Your task to perform on an android device: turn off improve location accuracy Image 0: 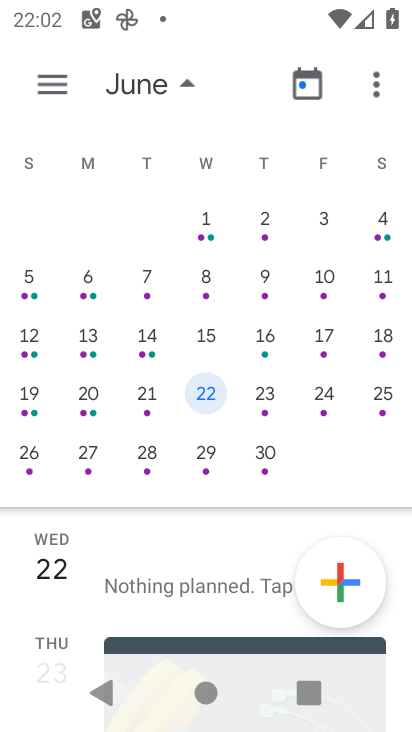
Step 0: press home button
Your task to perform on an android device: turn off improve location accuracy Image 1: 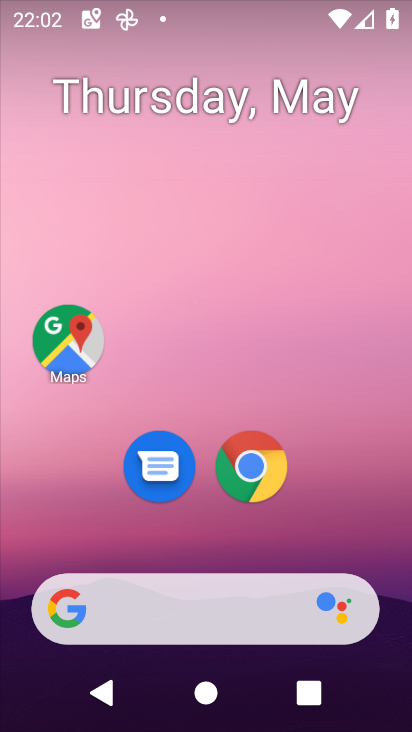
Step 1: drag from (367, 512) to (352, 69)
Your task to perform on an android device: turn off improve location accuracy Image 2: 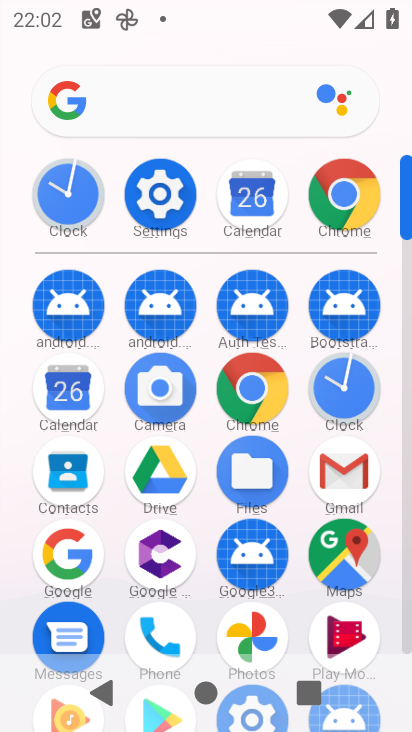
Step 2: click (169, 199)
Your task to perform on an android device: turn off improve location accuracy Image 3: 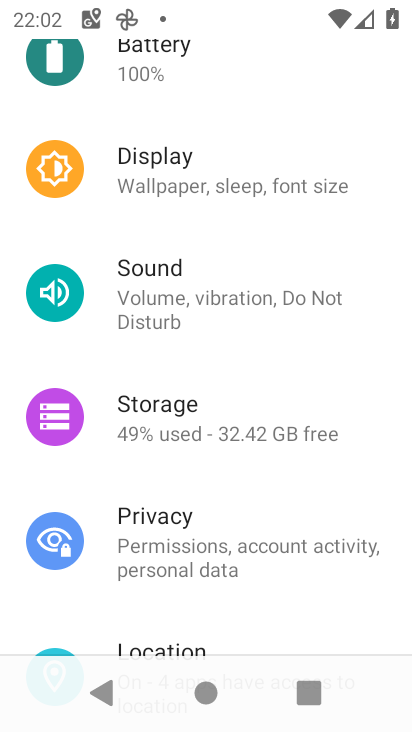
Step 3: click (214, 618)
Your task to perform on an android device: turn off improve location accuracy Image 4: 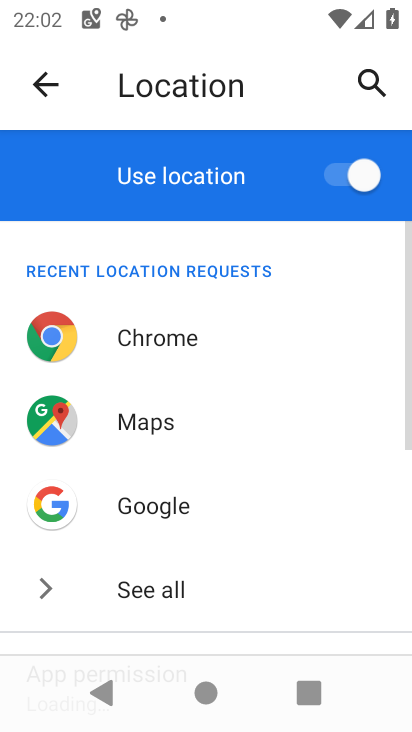
Step 4: drag from (246, 594) to (243, 164)
Your task to perform on an android device: turn off improve location accuracy Image 5: 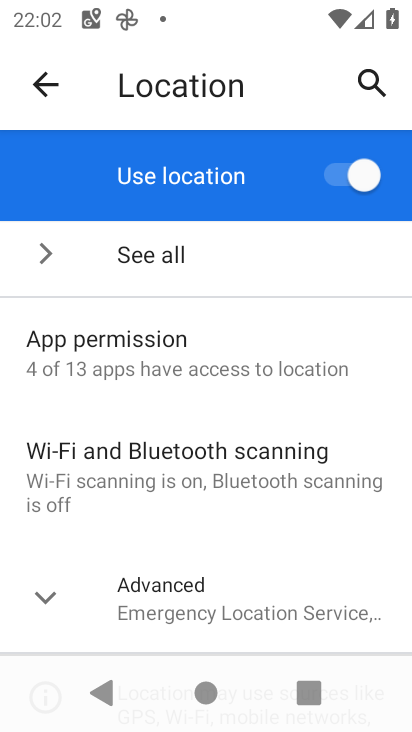
Step 5: click (179, 570)
Your task to perform on an android device: turn off improve location accuracy Image 6: 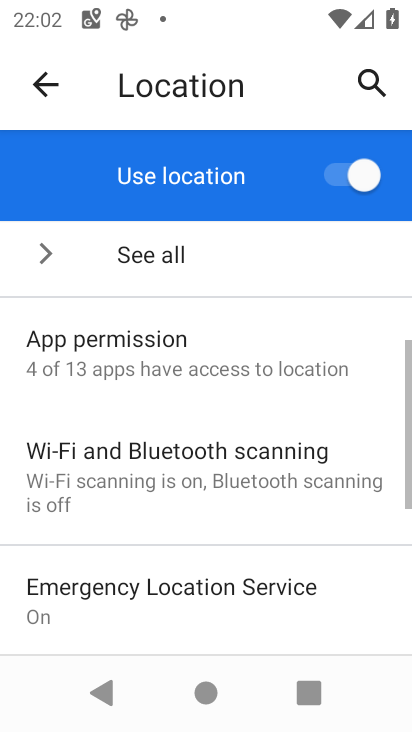
Step 6: drag from (266, 554) to (287, 282)
Your task to perform on an android device: turn off improve location accuracy Image 7: 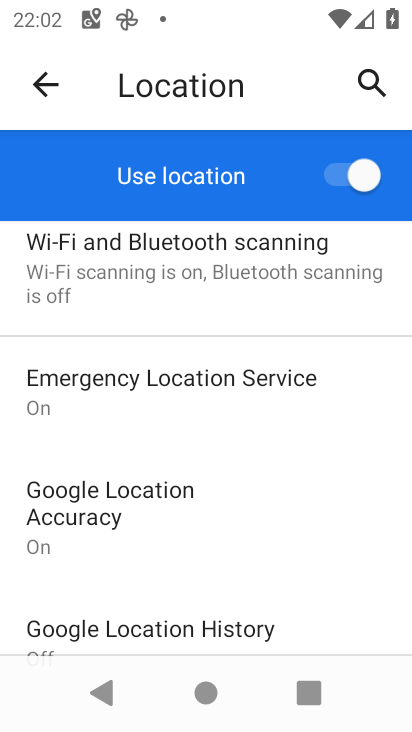
Step 7: click (257, 502)
Your task to perform on an android device: turn off improve location accuracy Image 8: 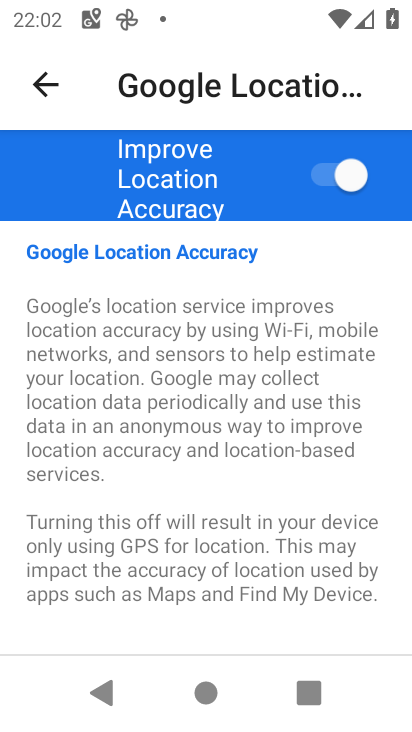
Step 8: click (342, 164)
Your task to perform on an android device: turn off improve location accuracy Image 9: 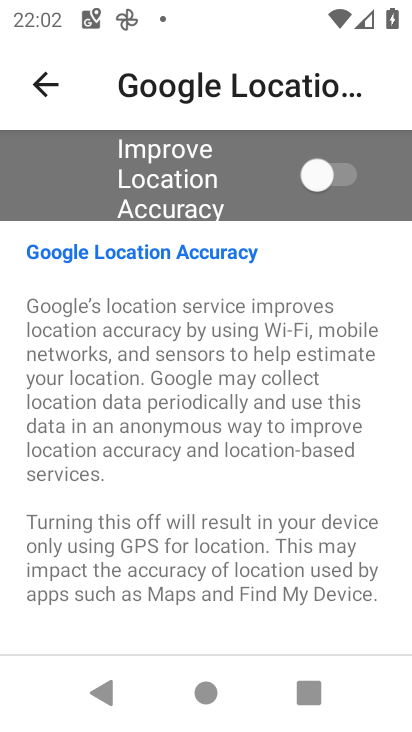
Step 9: task complete